Your task to perform on an android device: delete the emails in spam in the gmail app Image 0: 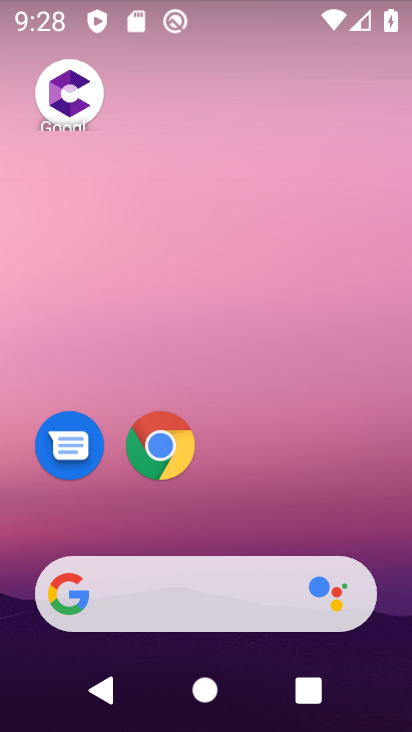
Step 0: drag from (312, 525) to (309, 42)
Your task to perform on an android device: delete the emails in spam in the gmail app Image 1: 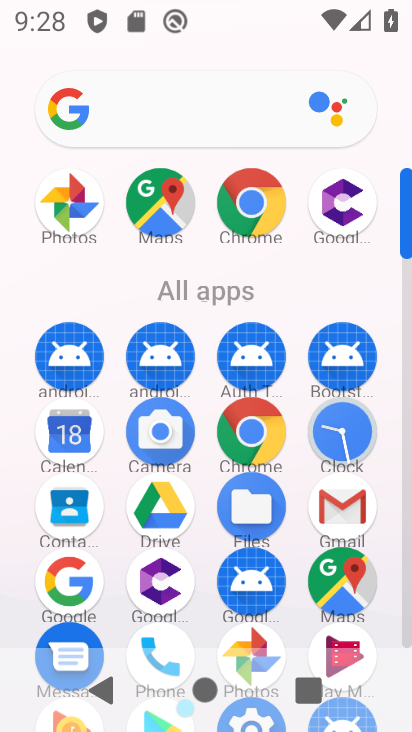
Step 1: click (342, 492)
Your task to perform on an android device: delete the emails in spam in the gmail app Image 2: 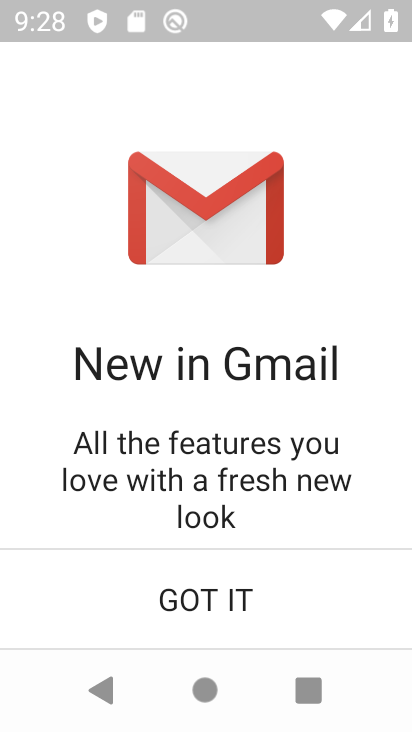
Step 2: click (241, 597)
Your task to perform on an android device: delete the emails in spam in the gmail app Image 3: 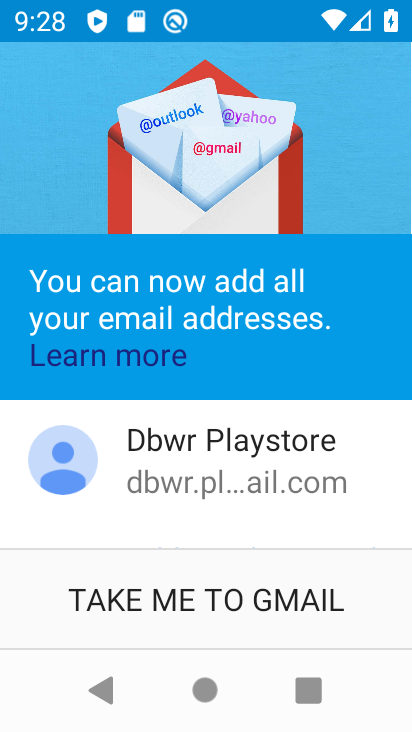
Step 3: click (241, 596)
Your task to perform on an android device: delete the emails in spam in the gmail app Image 4: 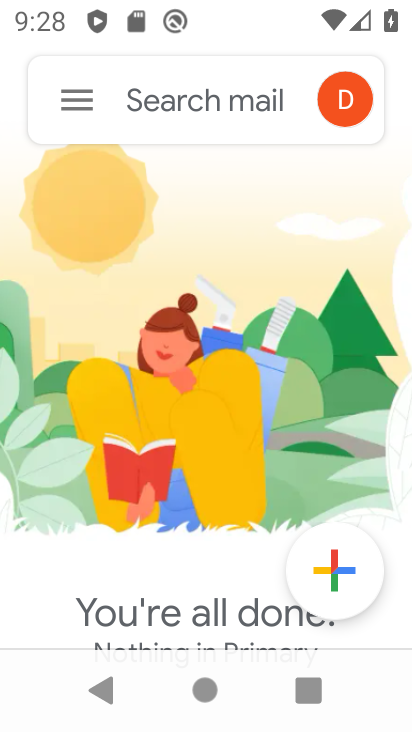
Step 4: click (74, 95)
Your task to perform on an android device: delete the emails in spam in the gmail app Image 5: 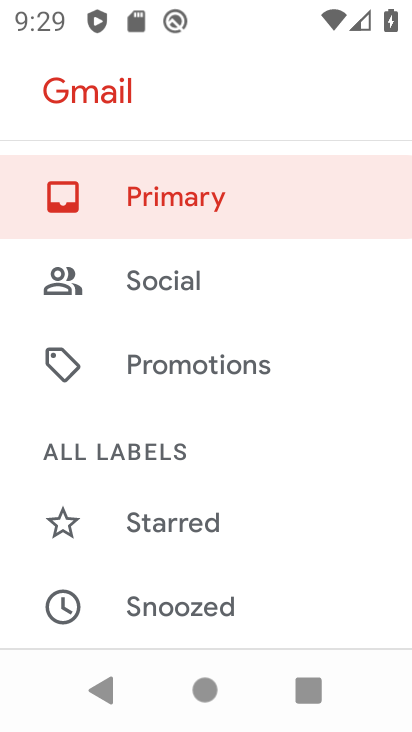
Step 5: drag from (268, 568) to (298, 154)
Your task to perform on an android device: delete the emails in spam in the gmail app Image 6: 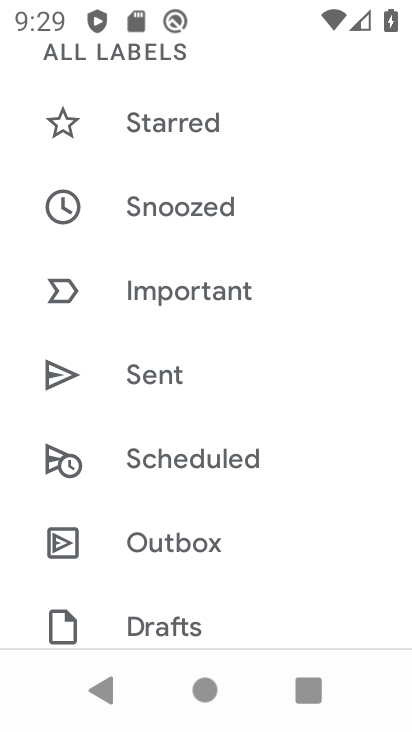
Step 6: drag from (228, 551) to (252, 93)
Your task to perform on an android device: delete the emails in spam in the gmail app Image 7: 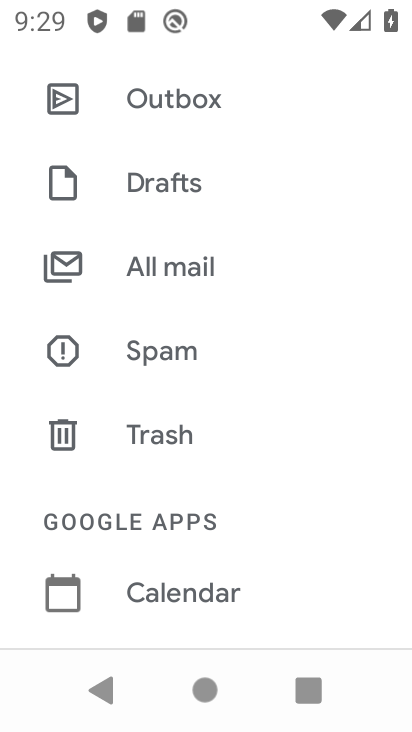
Step 7: click (214, 351)
Your task to perform on an android device: delete the emails in spam in the gmail app Image 8: 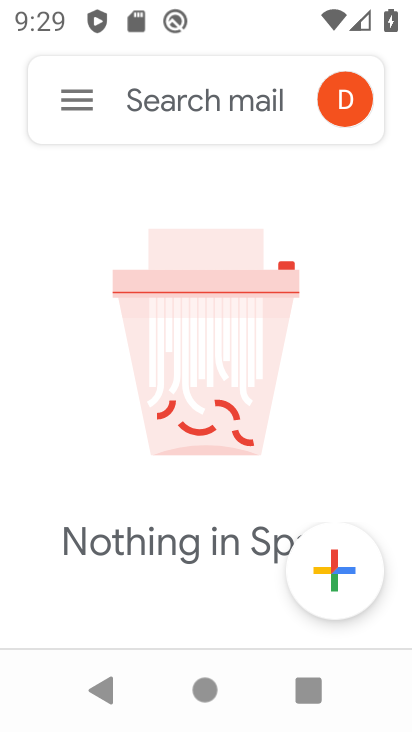
Step 8: task complete